Your task to perform on an android device: see sites visited before in the chrome app Image 0: 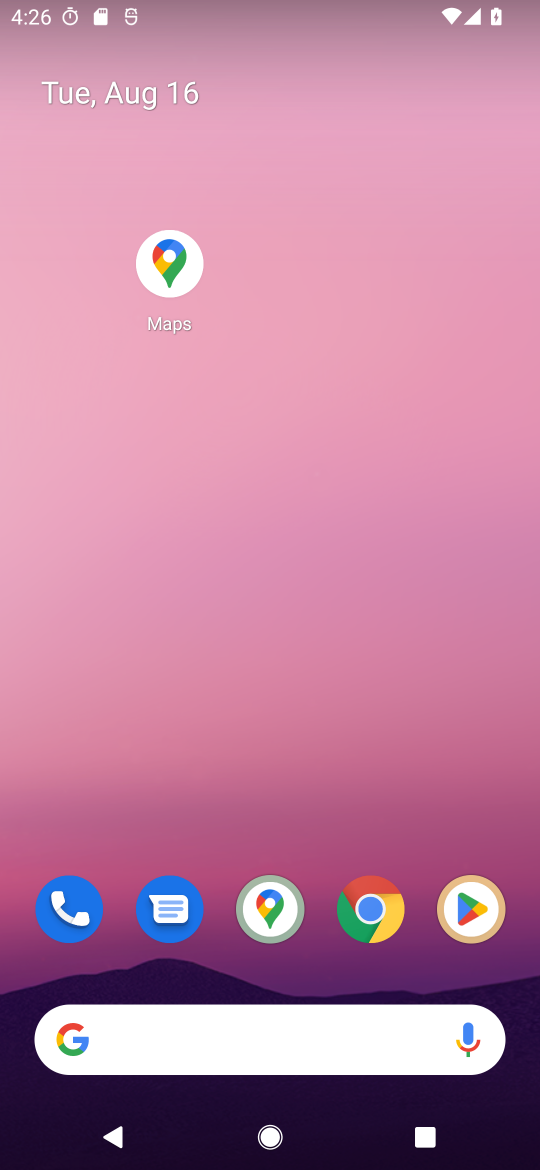
Step 0: click (384, 921)
Your task to perform on an android device: see sites visited before in the chrome app Image 1: 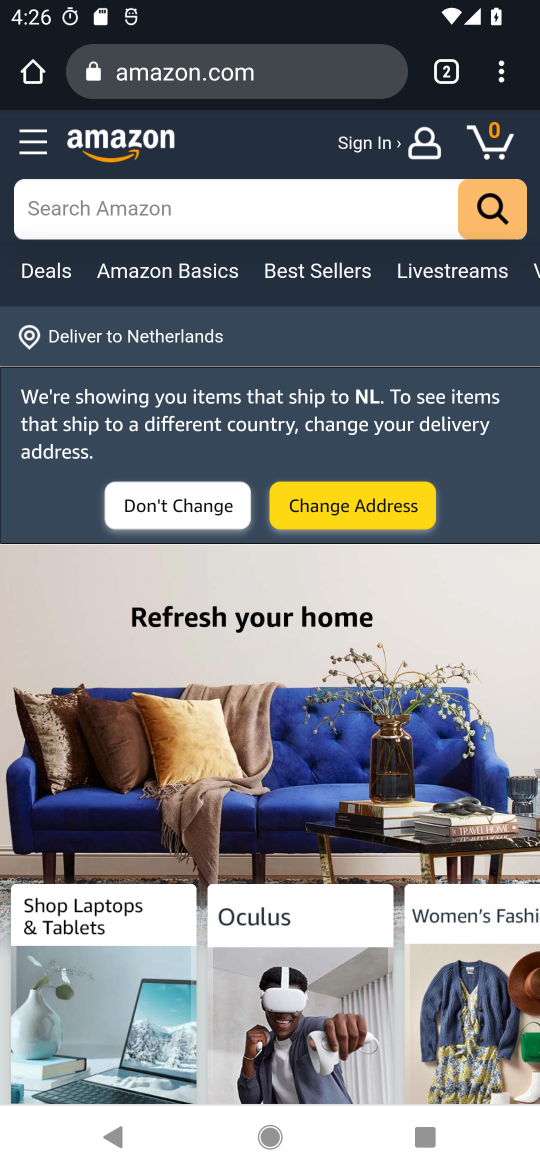
Step 1: click (500, 74)
Your task to perform on an android device: see sites visited before in the chrome app Image 2: 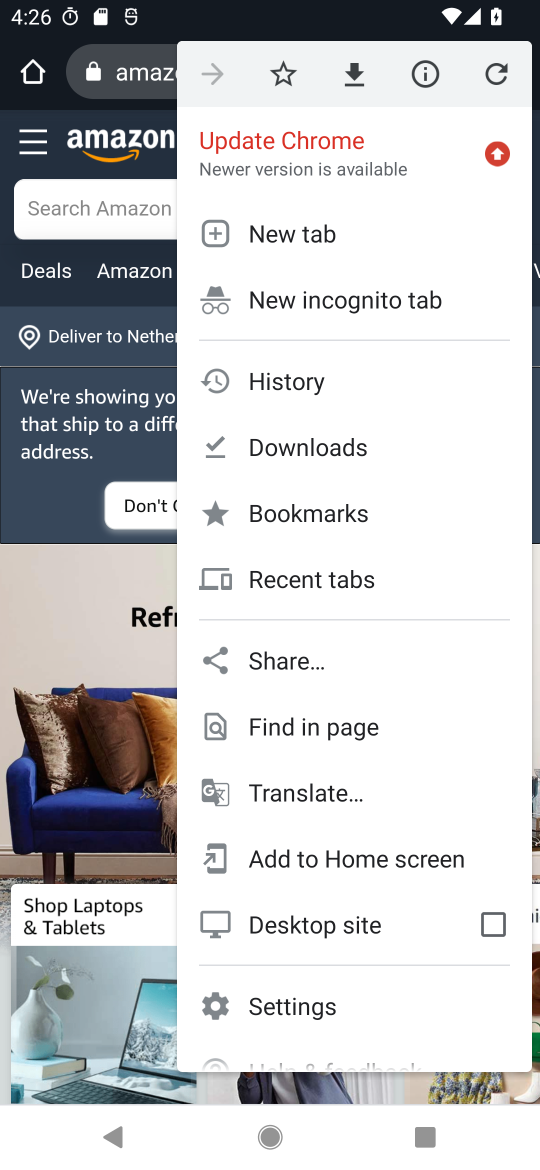
Step 2: click (333, 393)
Your task to perform on an android device: see sites visited before in the chrome app Image 3: 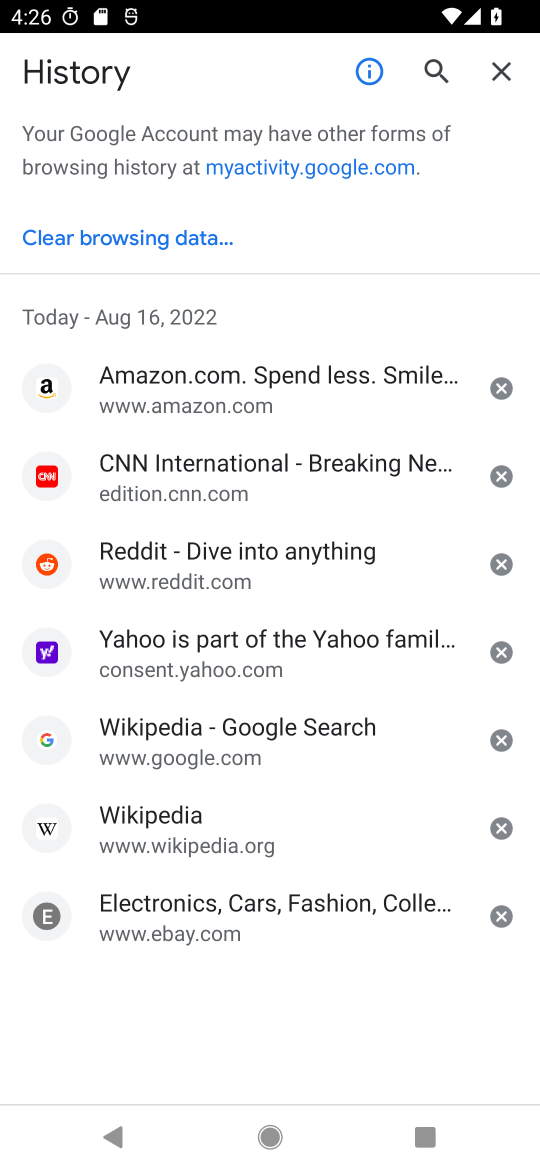
Step 3: task complete